Your task to perform on an android device: turn notification dots off Image 0: 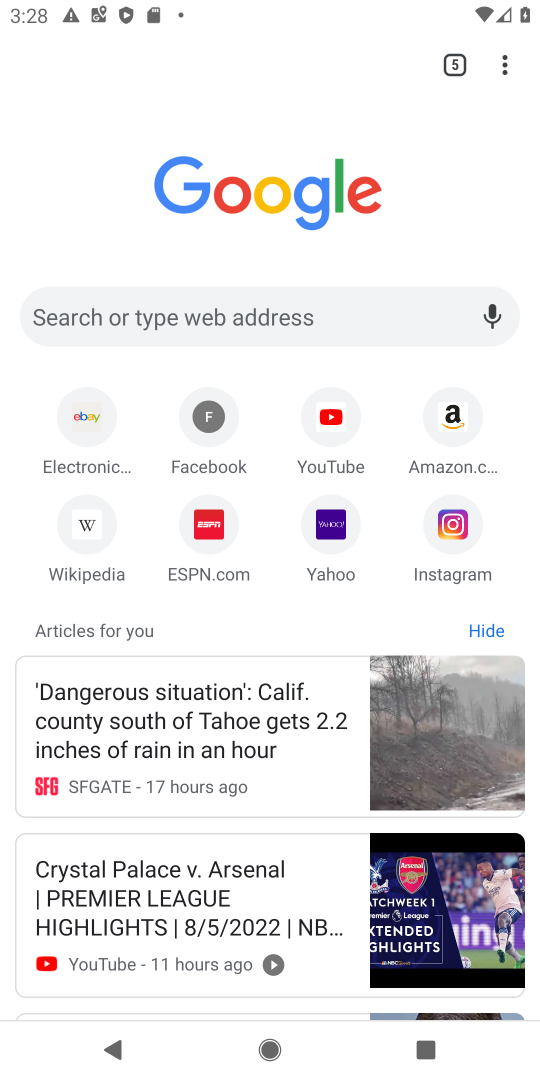
Step 0: press back button
Your task to perform on an android device: turn notification dots off Image 1: 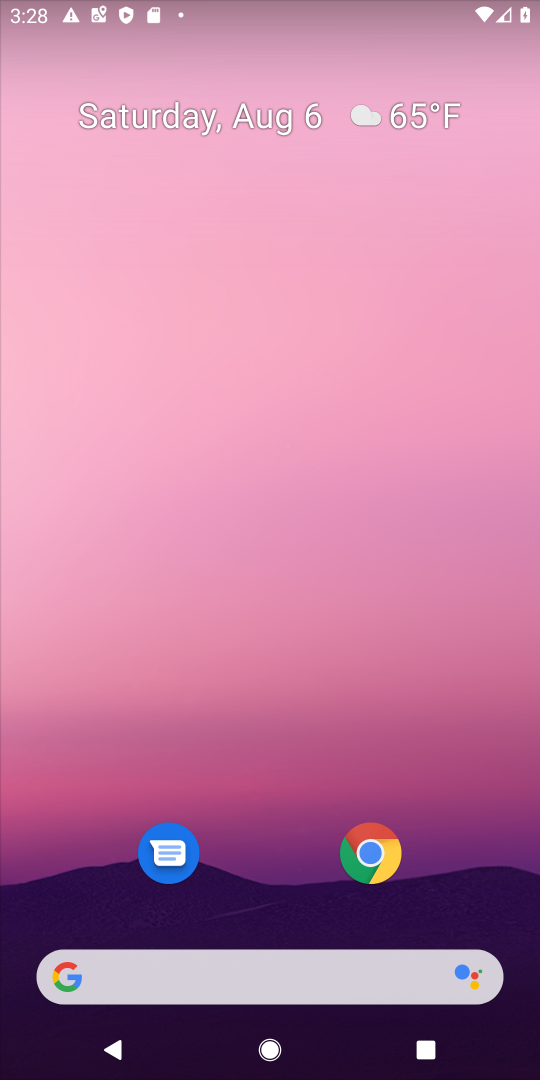
Step 1: drag from (272, 880) to (364, 8)
Your task to perform on an android device: turn notification dots off Image 2: 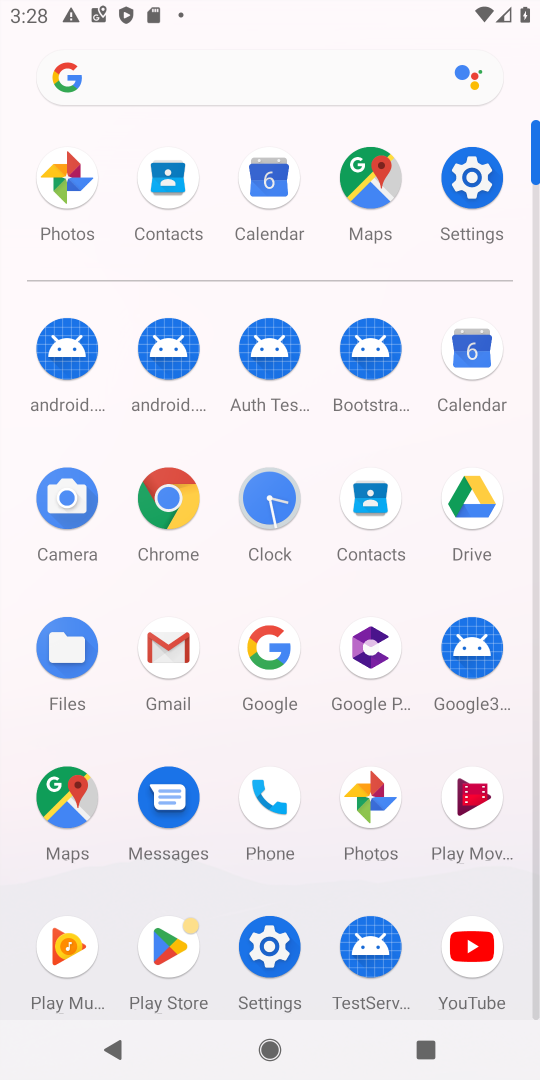
Step 2: click (462, 189)
Your task to perform on an android device: turn notification dots off Image 3: 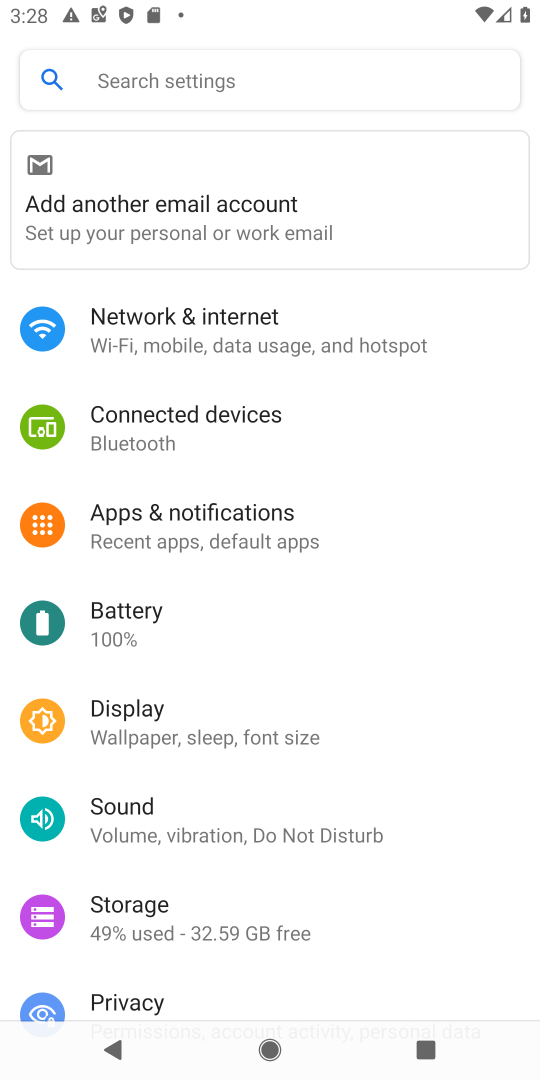
Step 3: click (321, 521)
Your task to perform on an android device: turn notification dots off Image 4: 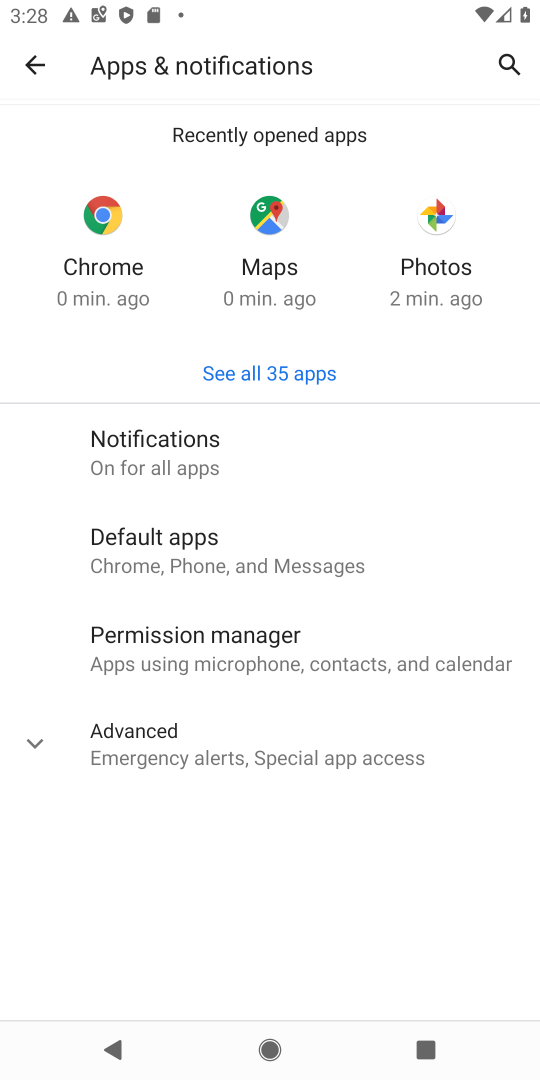
Step 4: click (206, 461)
Your task to perform on an android device: turn notification dots off Image 5: 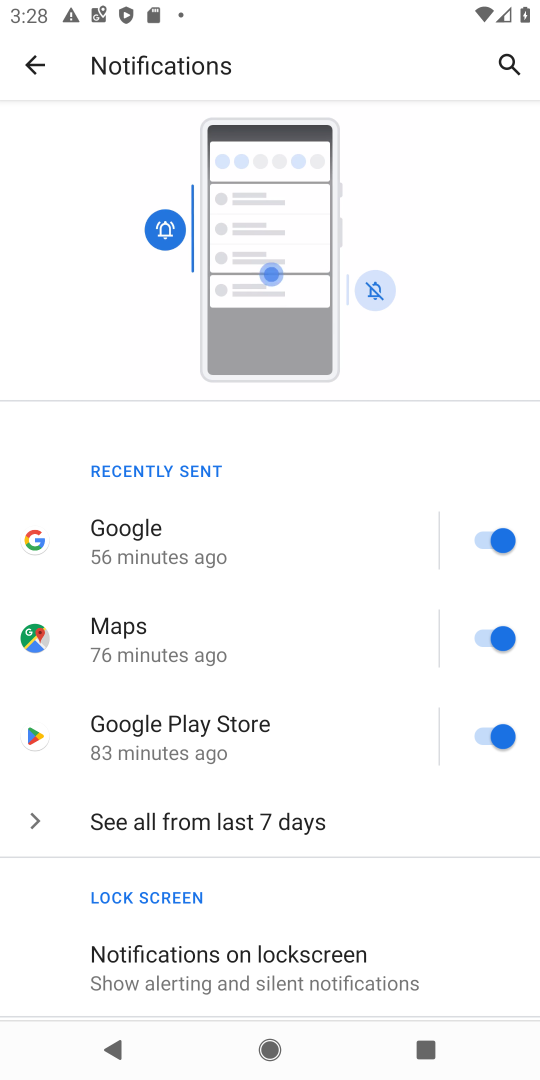
Step 5: drag from (273, 943) to (395, 400)
Your task to perform on an android device: turn notification dots off Image 6: 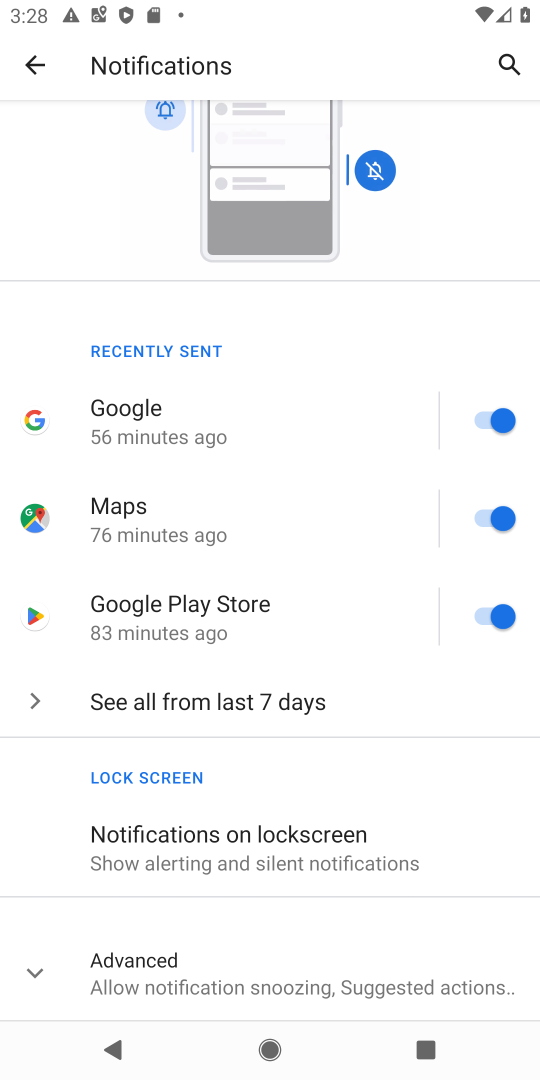
Step 6: click (305, 996)
Your task to perform on an android device: turn notification dots off Image 7: 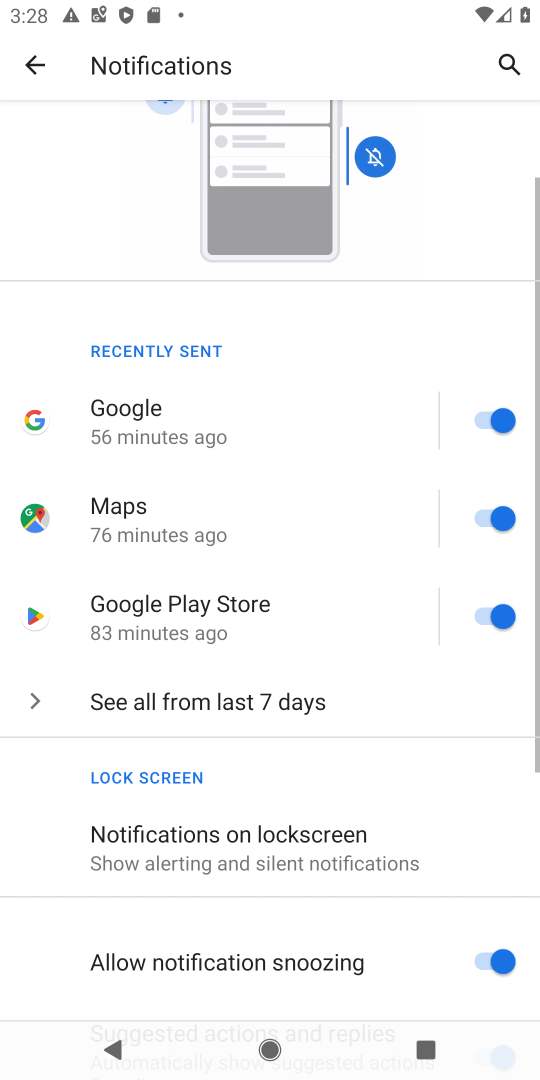
Step 7: drag from (291, 951) to (291, 477)
Your task to perform on an android device: turn notification dots off Image 8: 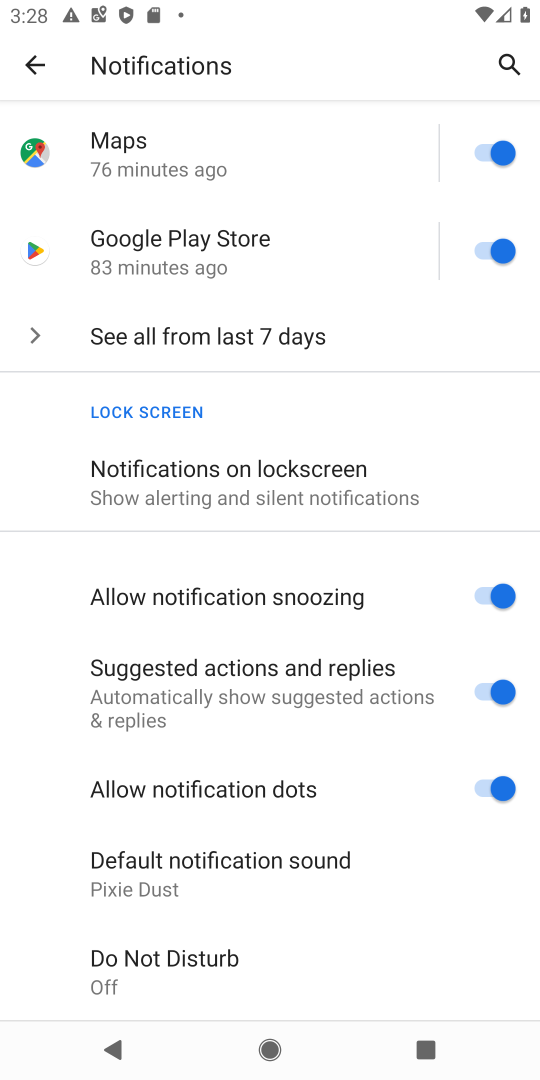
Step 8: click (501, 792)
Your task to perform on an android device: turn notification dots off Image 9: 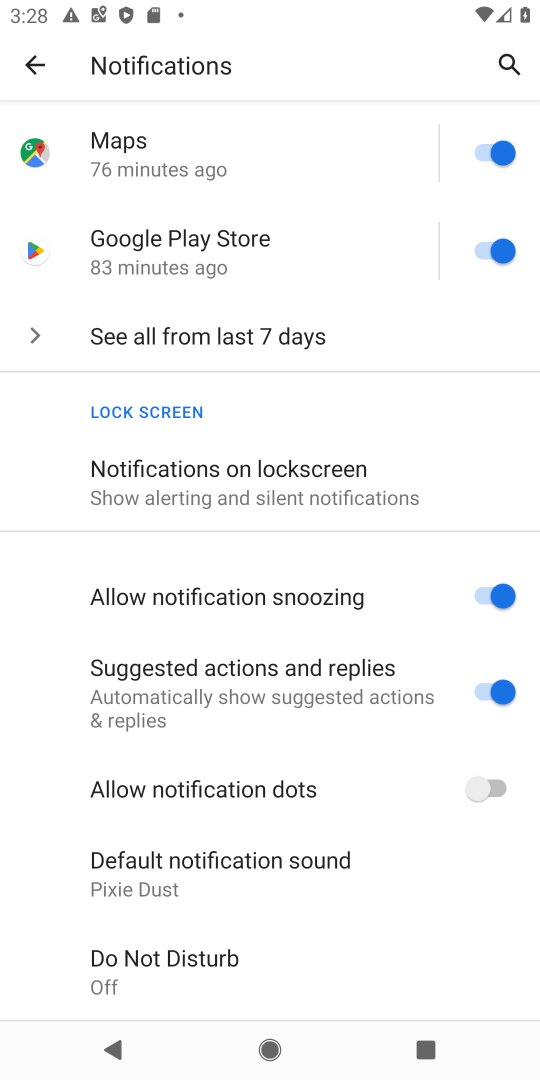
Step 9: task complete